Your task to perform on an android device: see tabs open on other devices in the chrome app Image 0: 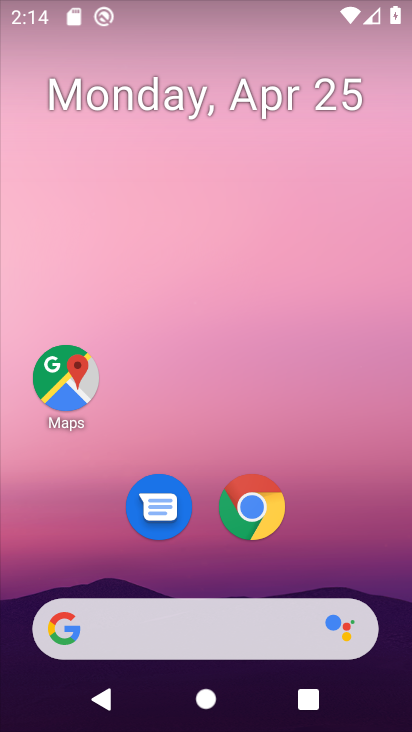
Step 0: drag from (108, 621) to (282, 345)
Your task to perform on an android device: see tabs open on other devices in the chrome app Image 1: 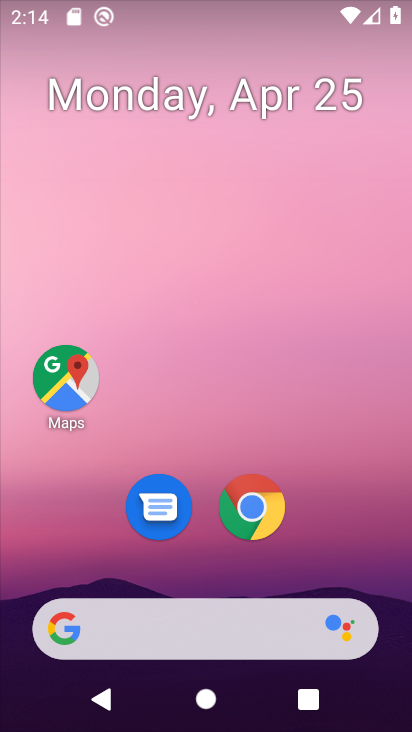
Step 1: click (263, 501)
Your task to perform on an android device: see tabs open on other devices in the chrome app Image 2: 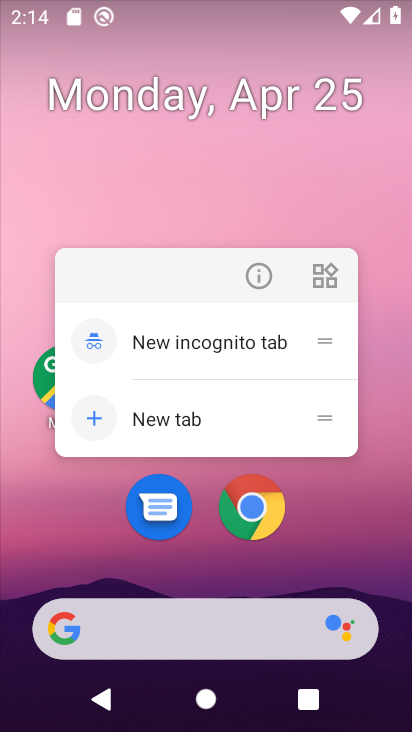
Step 2: click (248, 519)
Your task to perform on an android device: see tabs open on other devices in the chrome app Image 3: 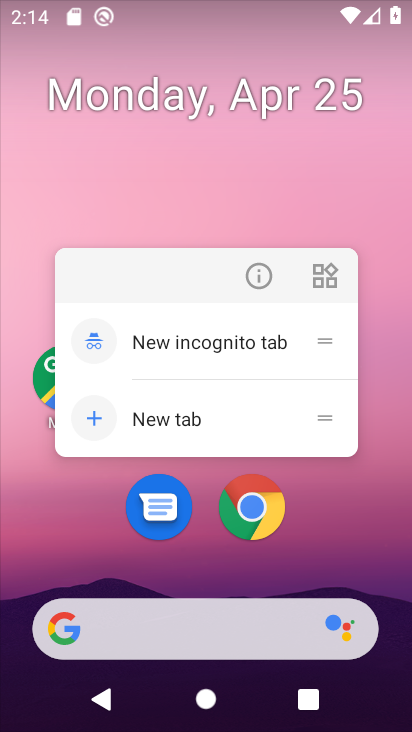
Step 3: click (238, 531)
Your task to perform on an android device: see tabs open on other devices in the chrome app Image 4: 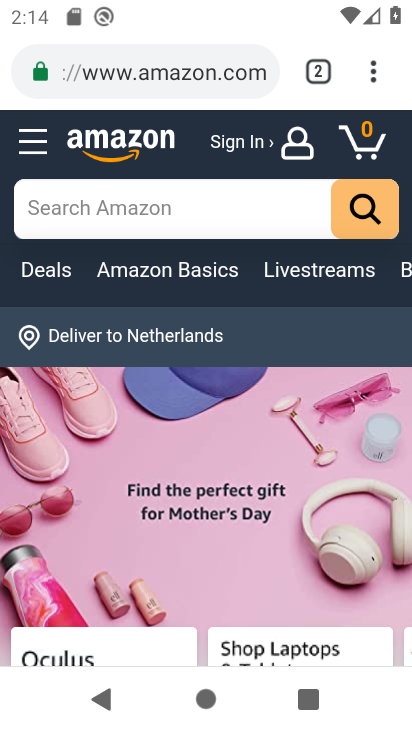
Step 4: click (255, 520)
Your task to perform on an android device: see tabs open on other devices in the chrome app Image 5: 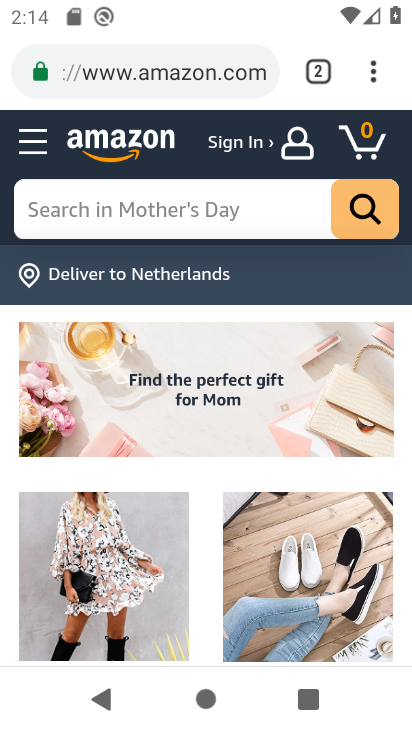
Step 5: click (370, 86)
Your task to perform on an android device: see tabs open on other devices in the chrome app Image 6: 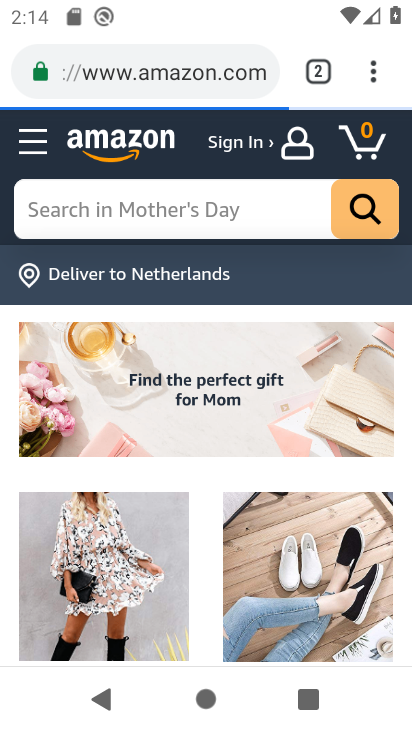
Step 6: task complete